Your task to perform on an android device: turn pop-ups on in chrome Image 0: 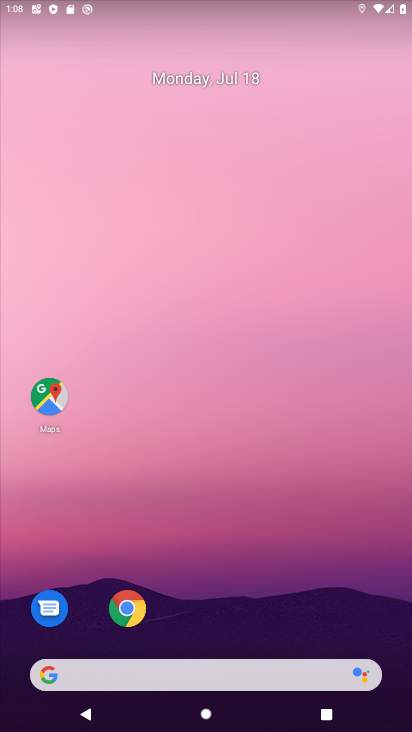
Step 0: drag from (390, 614) to (364, 119)
Your task to perform on an android device: turn pop-ups on in chrome Image 1: 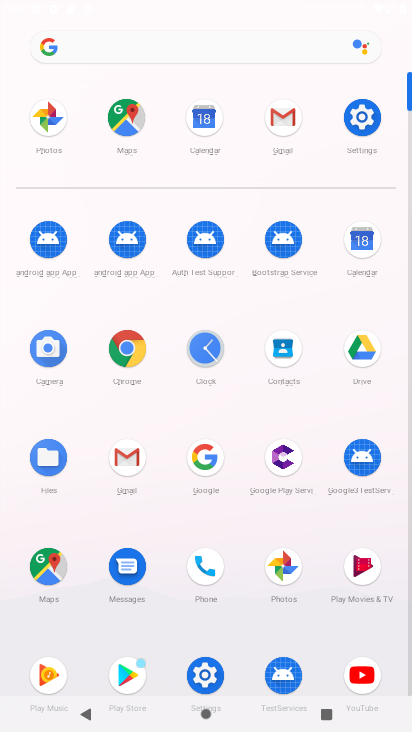
Step 1: click (122, 358)
Your task to perform on an android device: turn pop-ups on in chrome Image 2: 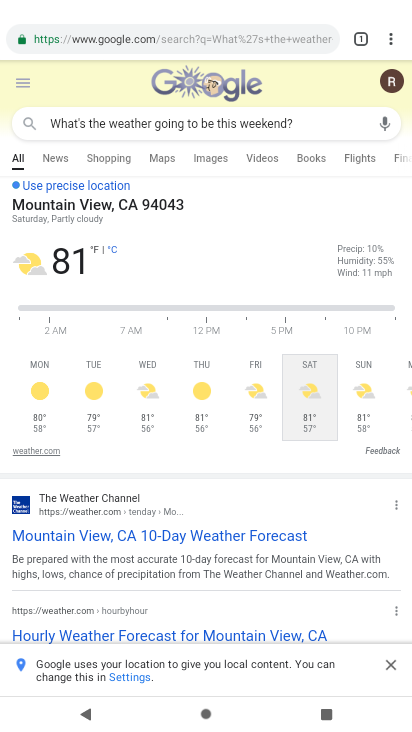
Step 2: click (388, 36)
Your task to perform on an android device: turn pop-ups on in chrome Image 3: 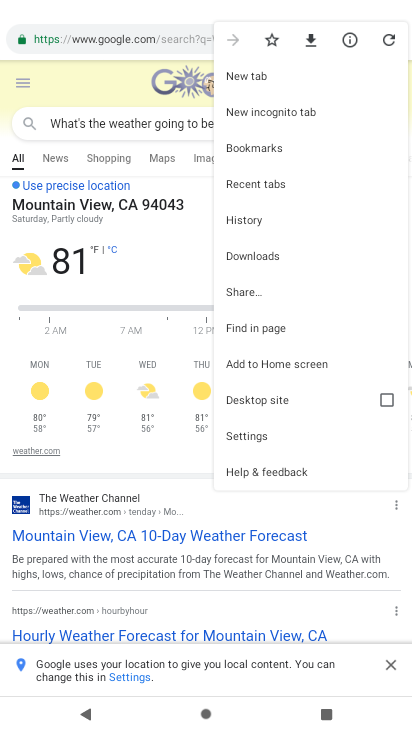
Step 3: click (297, 433)
Your task to perform on an android device: turn pop-ups on in chrome Image 4: 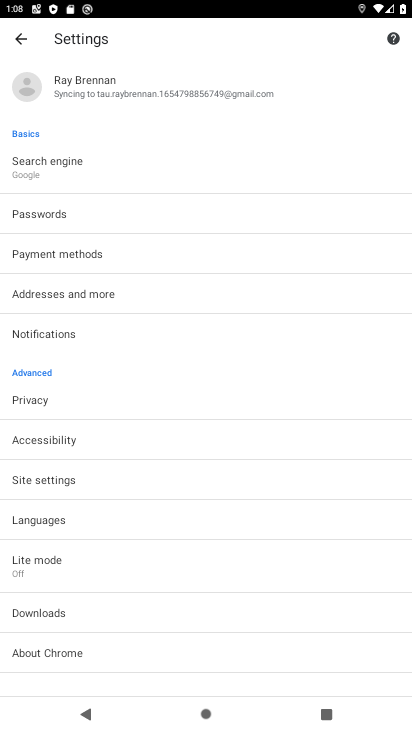
Step 4: click (204, 480)
Your task to perform on an android device: turn pop-ups on in chrome Image 5: 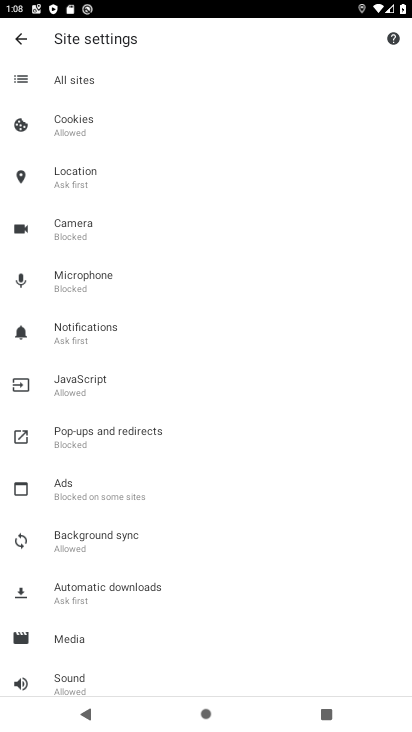
Step 5: click (199, 427)
Your task to perform on an android device: turn pop-ups on in chrome Image 6: 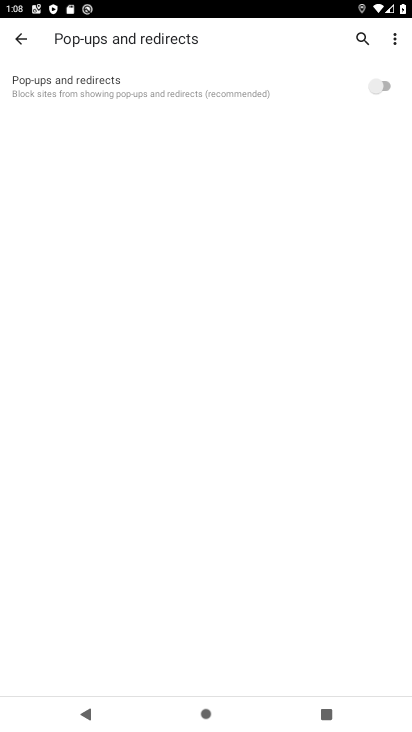
Step 6: click (387, 90)
Your task to perform on an android device: turn pop-ups on in chrome Image 7: 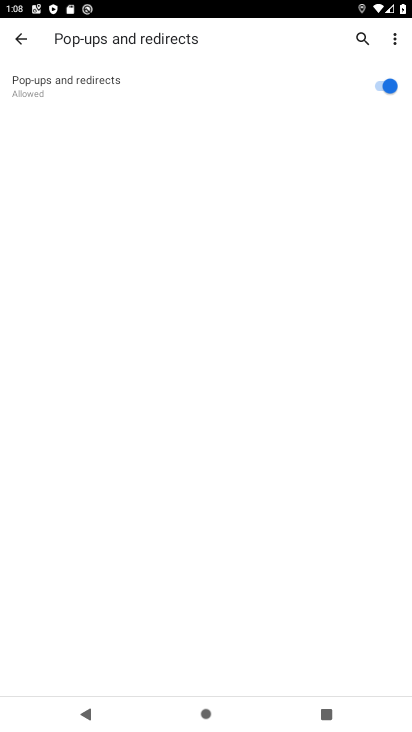
Step 7: task complete